Your task to perform on an android device: Open the phone app and click the voicemail tab. Image 0: 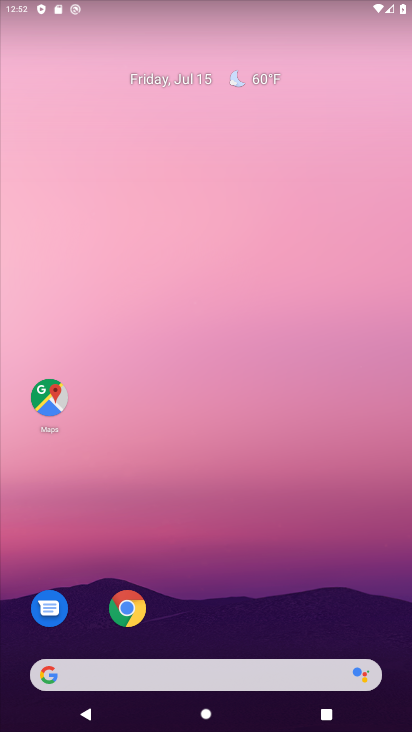
Step 0: press home button
Your task to perform on an android device: Open the phone app and click the voicemail tab. Image 1: 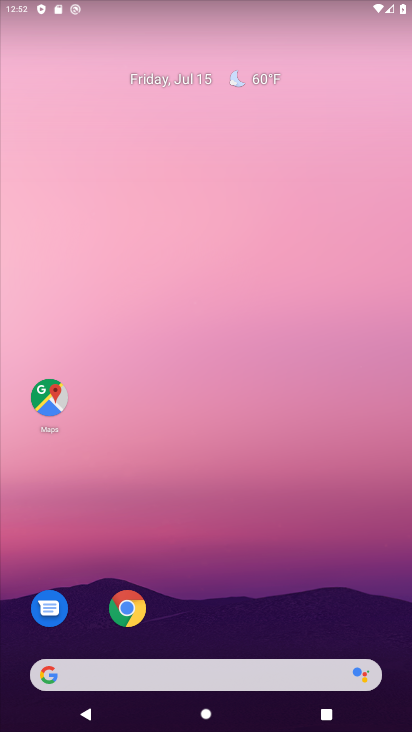
Step 1: drag from (210, 665) to (294, 35)
Your task to perform on an android device: Open the phone app and click the voicemail tab. Image 2: 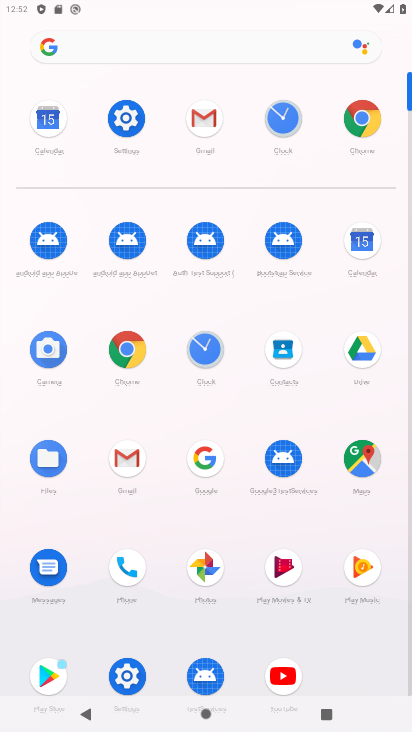
Step 2: click (128, 576)
Your task to perform on an android device: Open the phone app and click the voicemail tab. Image 3: 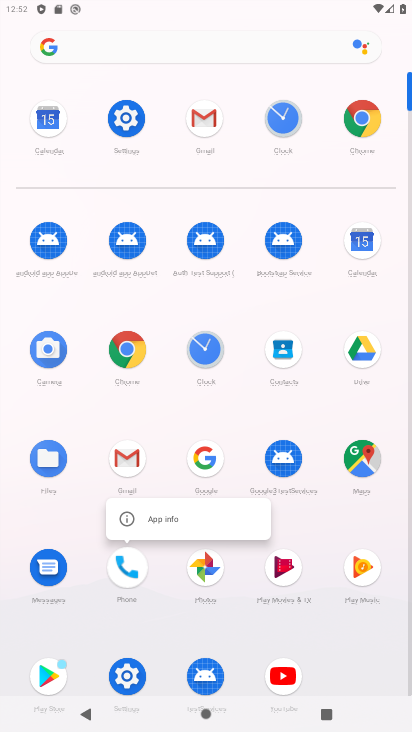
Step 3: click (149, 524)
Your task to perform on an android device: Open the phone app and click the voicemail tab. Image 4: 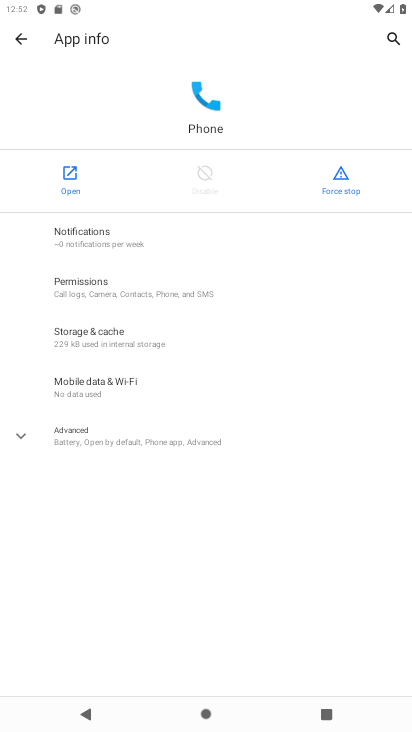
Step 4: press back button
Your task to perform on an android device: Open the phone app and click the voicemail tab. Image 5: 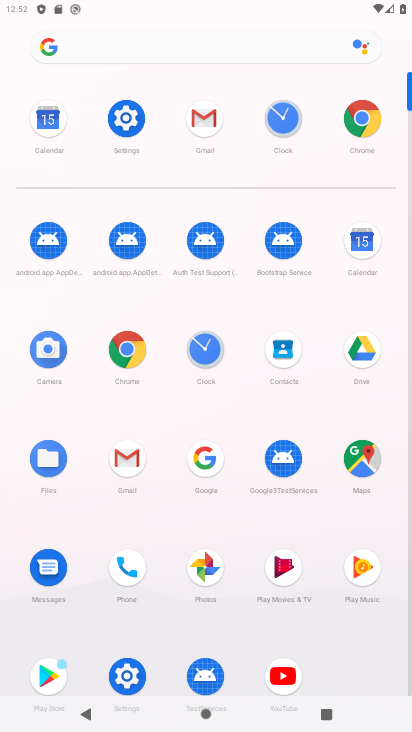
Step 5: click (148, 554)
Your task to perform on an android device: Open the phone app and click the voicemail tab. Image 6: 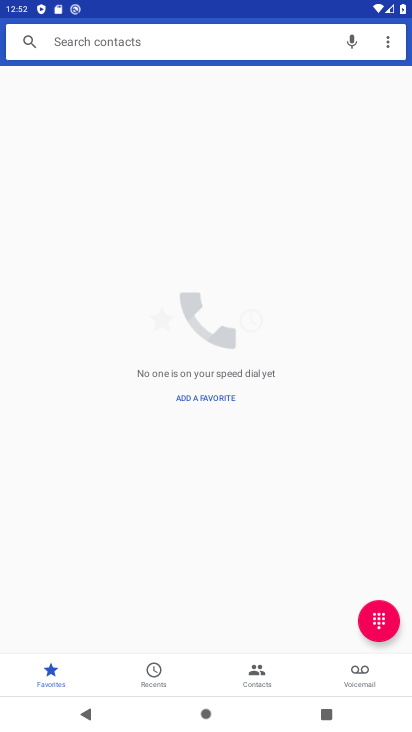
Step 6: click (343, 666)
Your task to perform on an android device: Open the phone app and click the voicemail tab. Image 7: 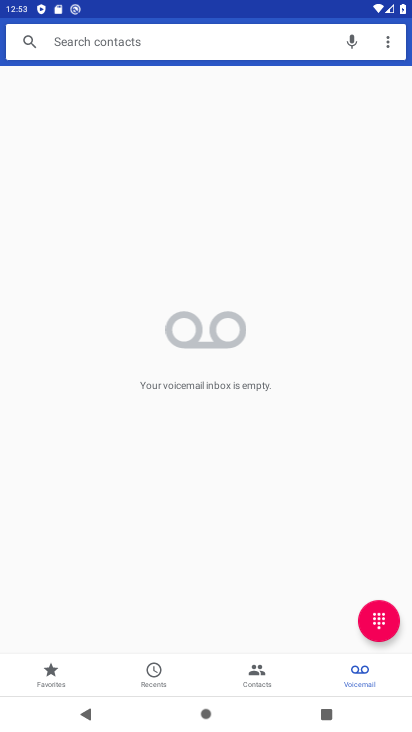
Step 7: task complete